Your task to perform on an android device: Go to settings Image 0: 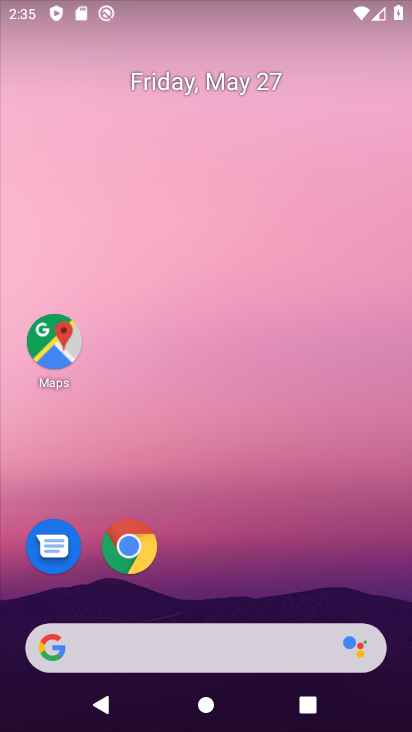
Step 0: drag from (219, 241) to (228, 189)
Your task to perform on an android device: Go to settings Image 1: 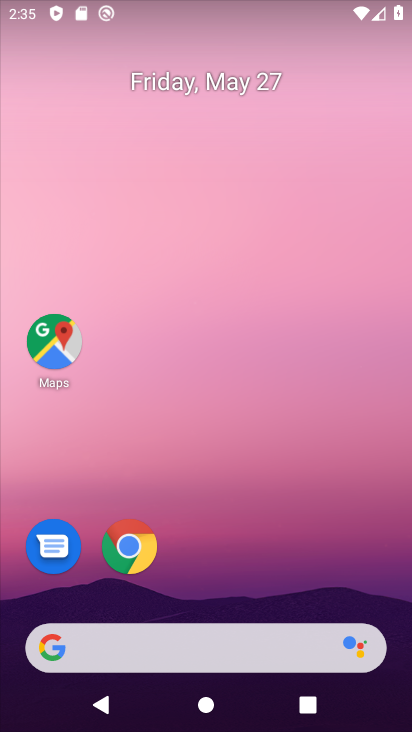
Step 1: drag from (163, 570) to (255, 210)
Your task to perform on an android device: Go to settings Image 2: 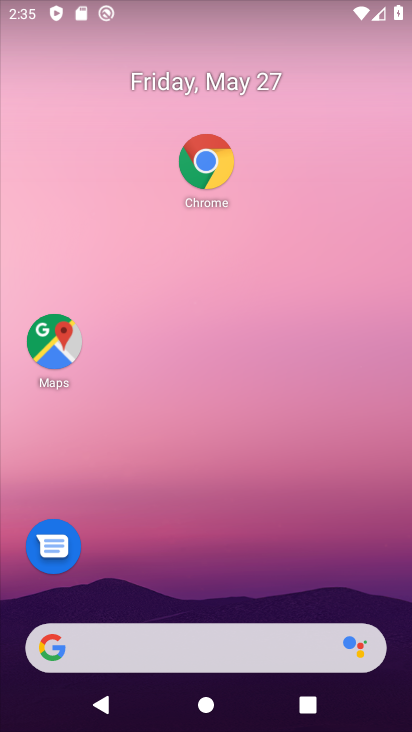
Step 2: drag from (177, 593) to (227, 158)
Your task to perform on an android device: Go to settings Image 3: 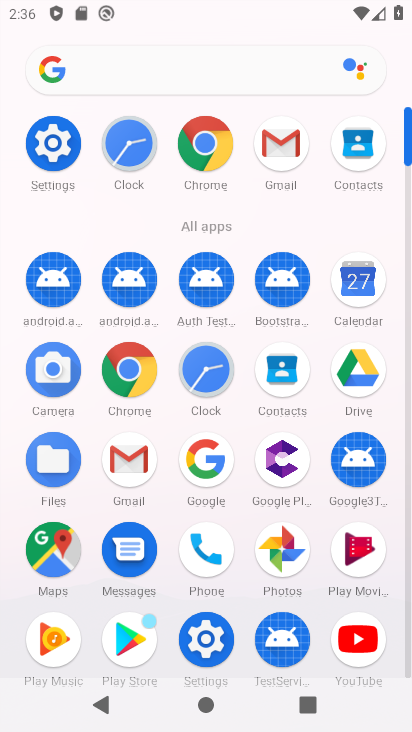
Step 3: click (50, 136)
Your task to perform on an android device: Go to settings Image 4: 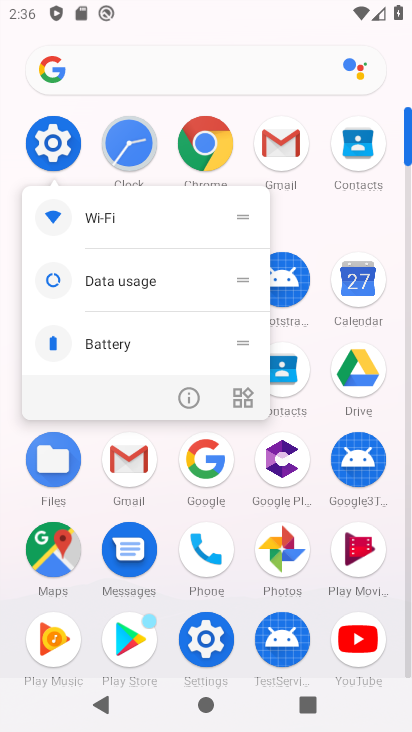
Step 4: task complete